Your task to perform on an android device: Open settings Image 0: 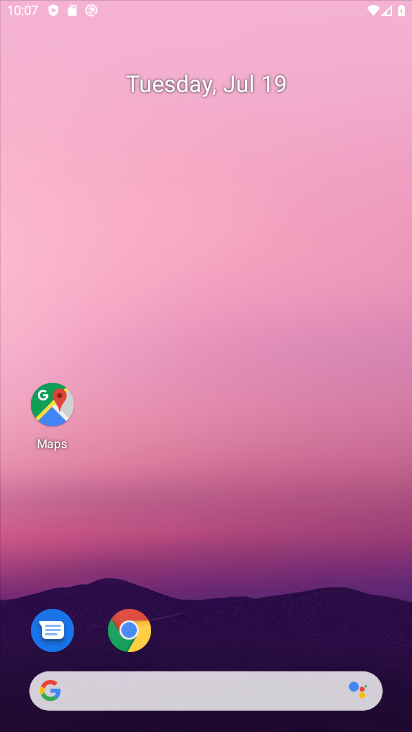
Step 0: press home button
Your task to perform on an android device: Open settings Image 1: 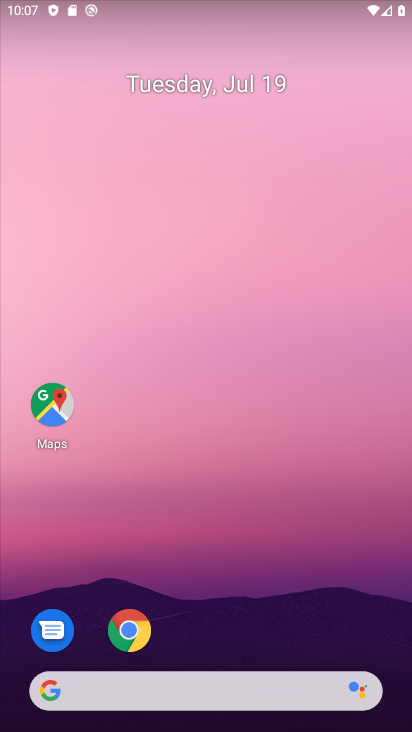
Step 1: drag from (225, 634) to (260, 11)
Your task to perform on an android device: Open settings Image 2: 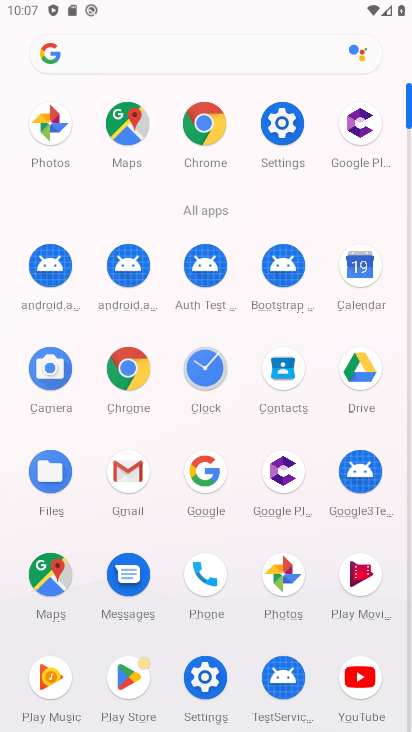
Step 2: click (279, 126)
Your task to perform on an android device: Open settings Image 3: 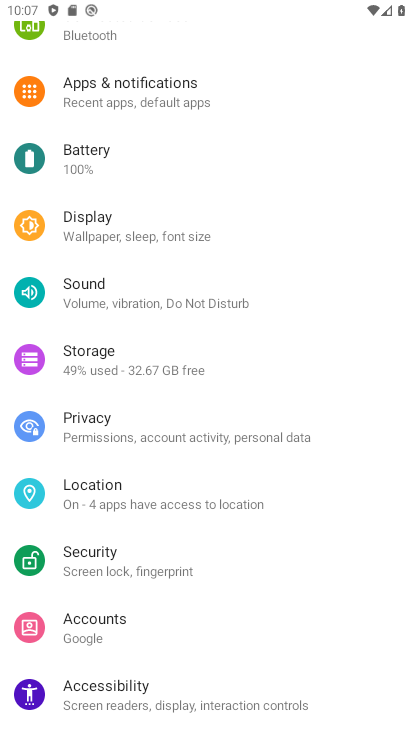
Step 3: task complete